Your task to perform on an android device: Go to sound settings Image 0: 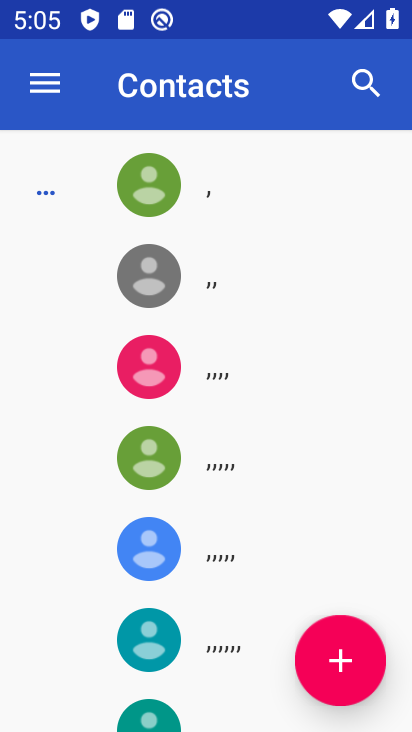
Step 0: press home button
Your task to perform on an android device: Go to sound settings Image 1: 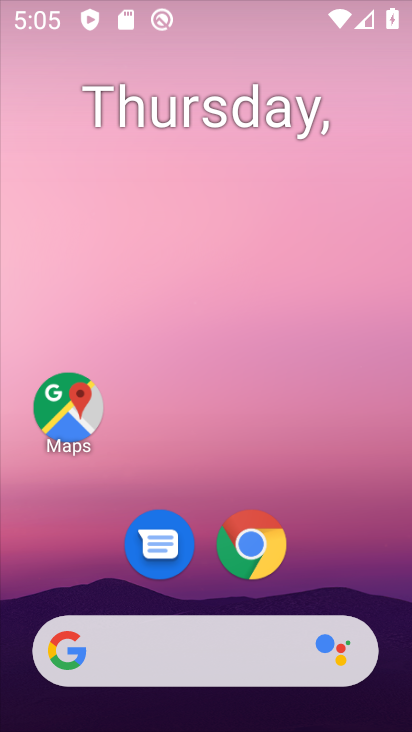
Step 1: drag from (308, 491) to (348, 144)
Your task to perform on an android device: Go to sound settings Image 2: 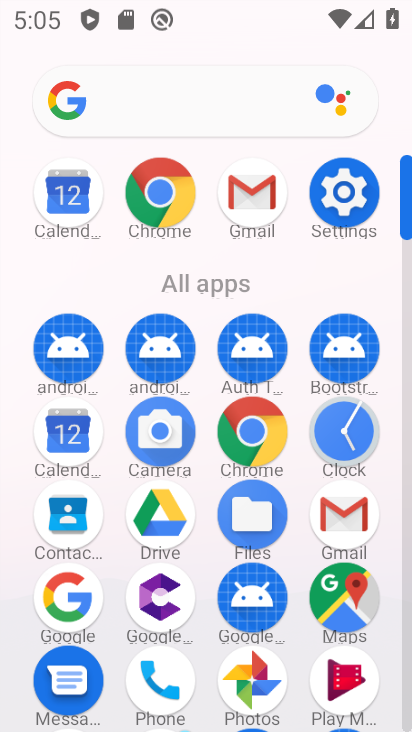
Step 2: click (350, 208)
Your task to perform on an android device: Go to sound settings Image 3: 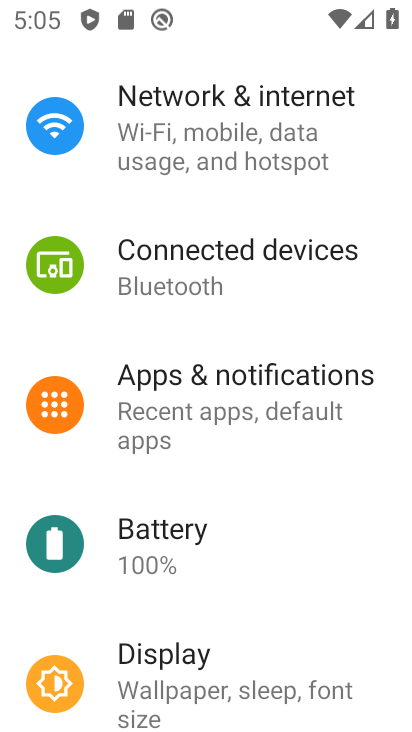
Step 3: drag from (232, 611) to (321, 191)
Your task to perform on an android device: Go to sound settings Image 4: 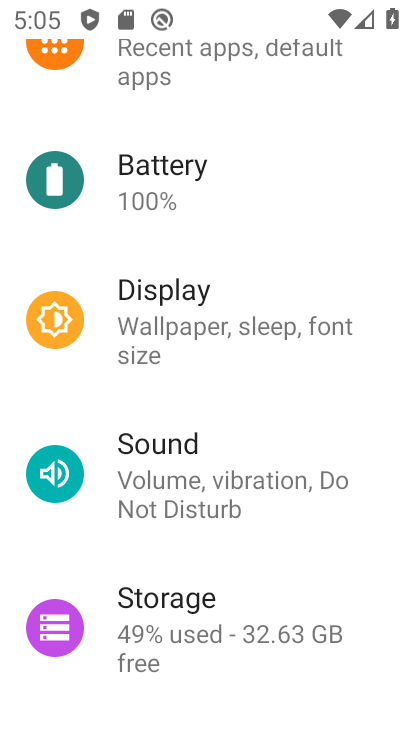
Step 4: click (215, 443)
Your task to perform on an android device: Go to sound settings Image 5: 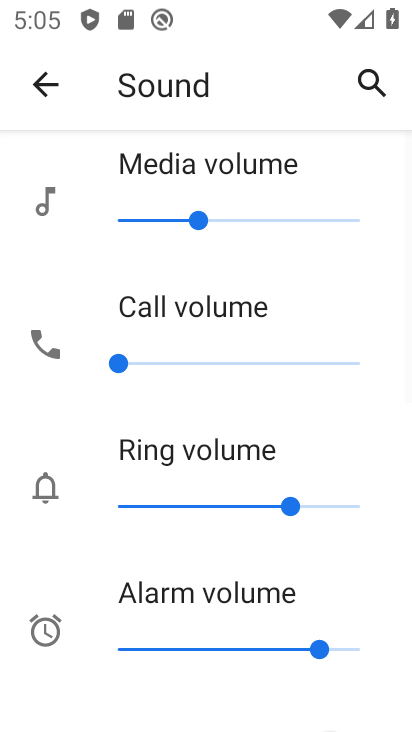
Step 5: task complete